Your task to perform on an android device: open app "Duolingo: language lessons" (install if not already installed) Image 0: 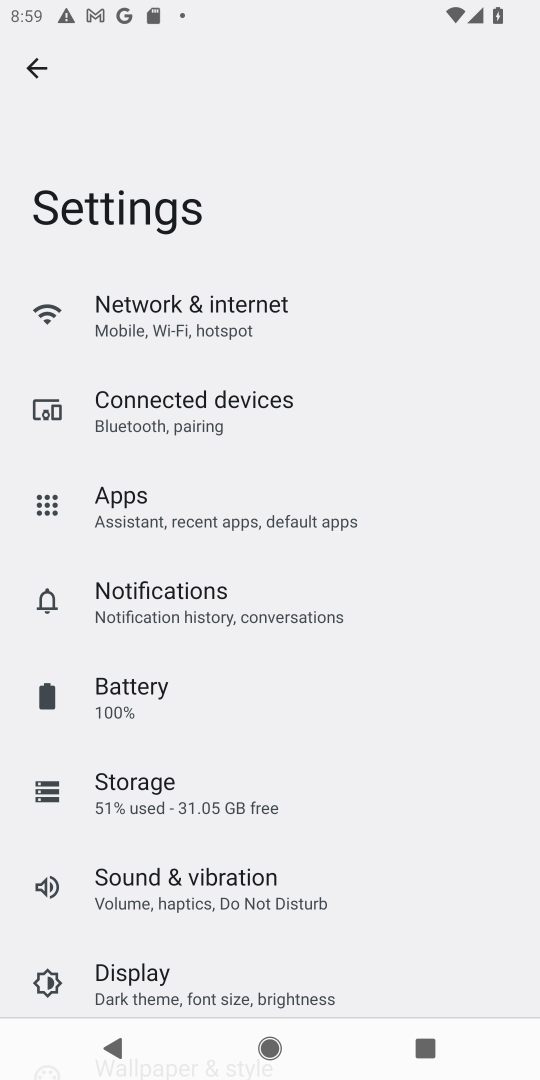
Step 0: press home button
Your task to perform on an android device: open app "Duolingo: language lessons" (install if not already installed) Image 1: 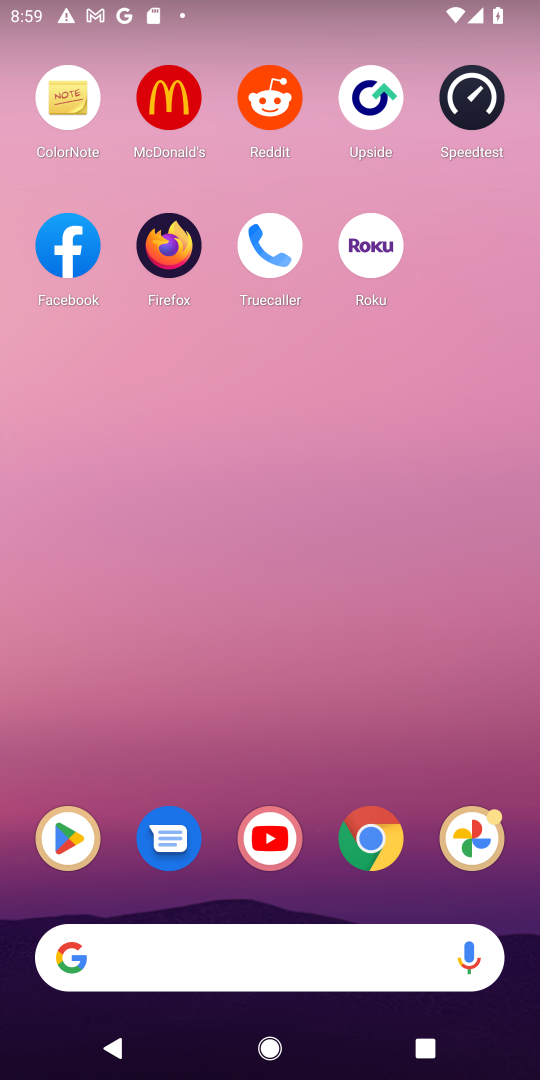
Step 1: drag from (415, 713) to (439, 66)
Your task to perform on an android device: open app "Duolingo: language lessons" (install if not already installed) Image 2: 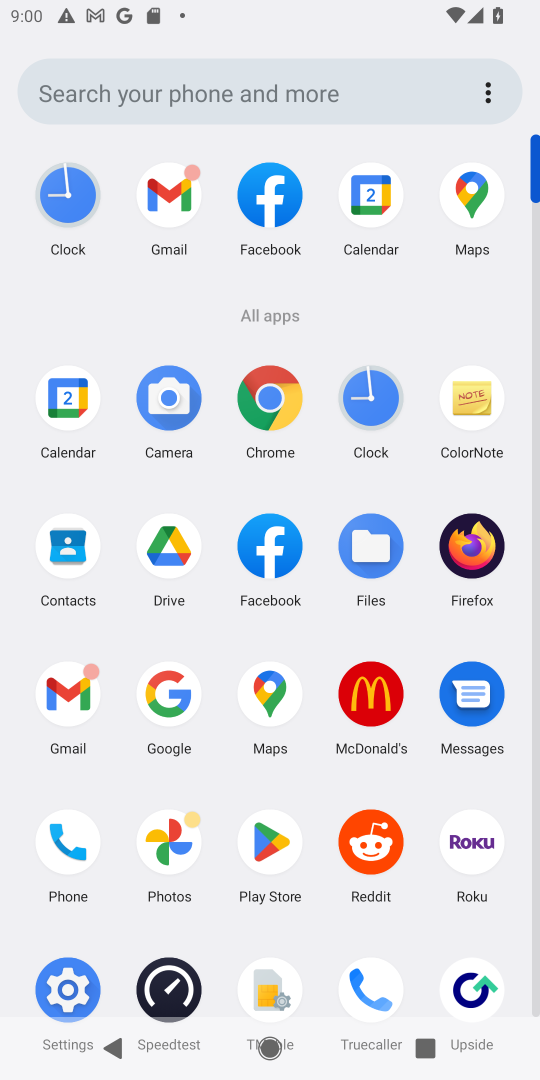
Step 2: click (273, 838)
Your task to perform on an android device: open app "Duolingo: language lessons" (install if not already installed) Image 3: 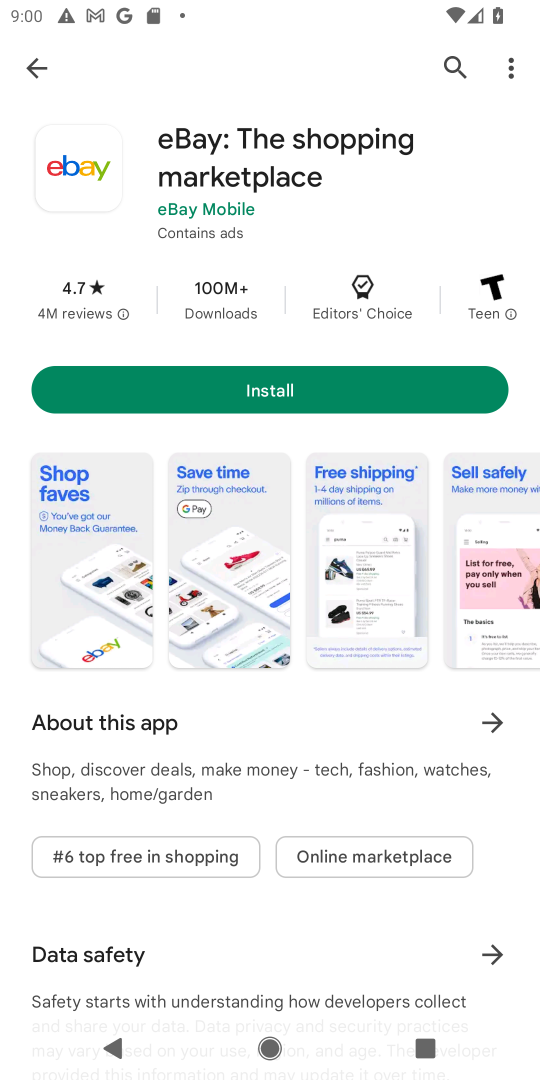
Step 3: click (452, 69)
Your task to perform on an android device: open app "Duolingo: language lessons" (install if not already installed) Image 4: 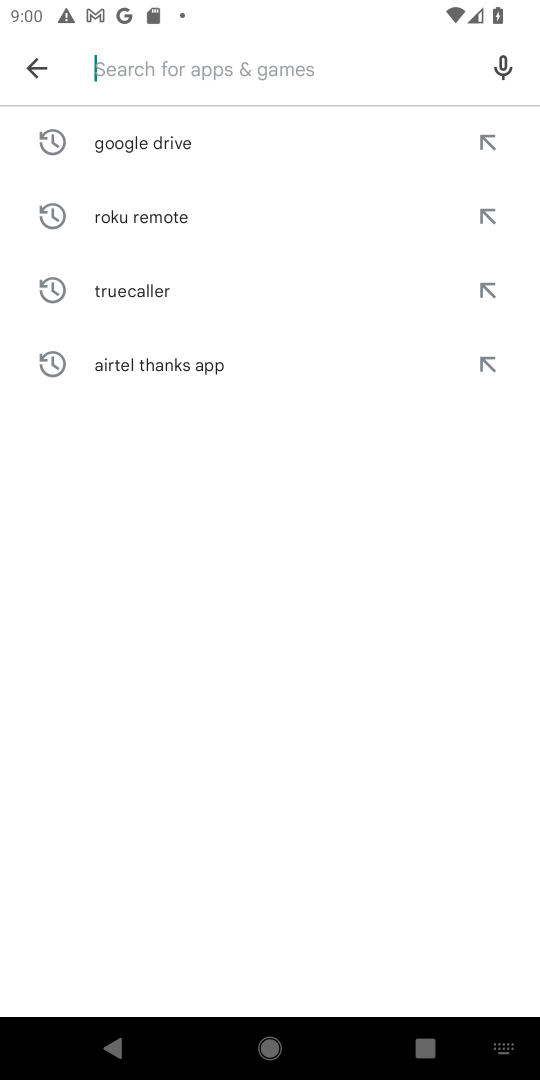
Step 4: click (368, 74)
Your task to perform on an android device: open app "Duolingo: language lessons" (install if not already installed) Image 5: 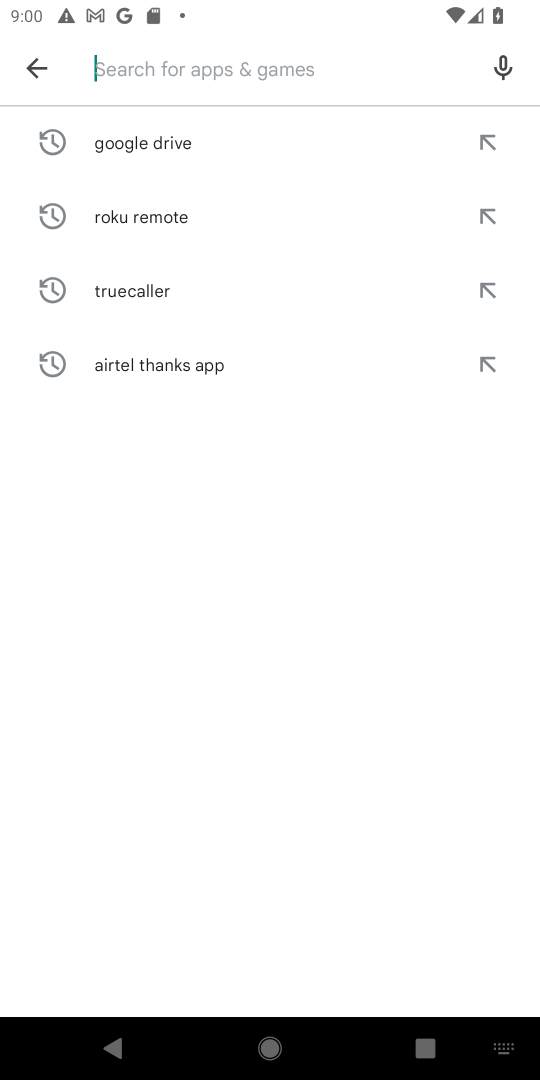
Step 5: type "Duolingo: language lessons"
Your task to perform on an android device: open app "Duolingo: language lessons" (install if not already installed) Image 6: 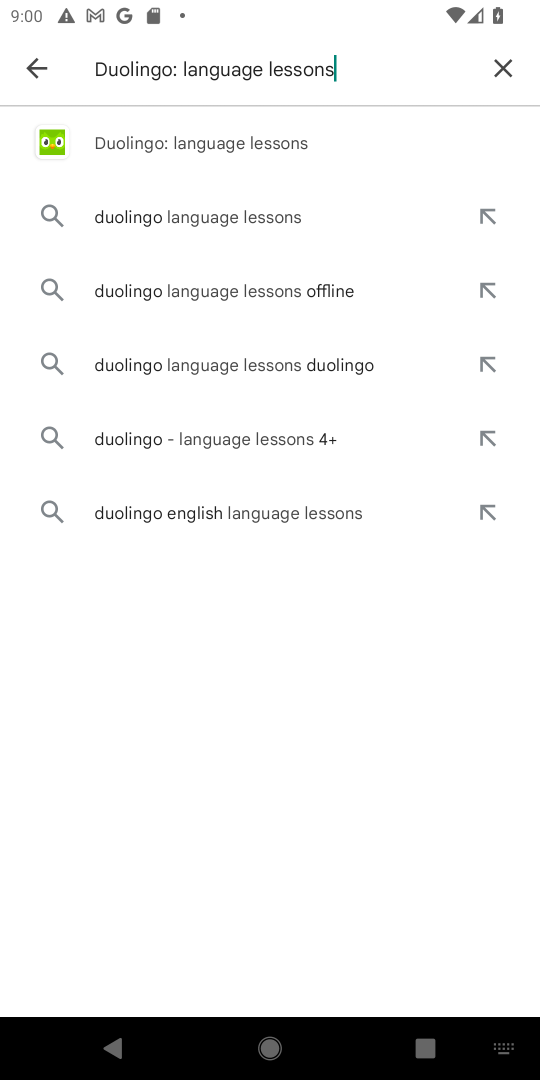
Step 6: click (298, 138)
Your task to perform on an android device: open app "Duolingo: language lessons" (install if not already installed) Image 7: 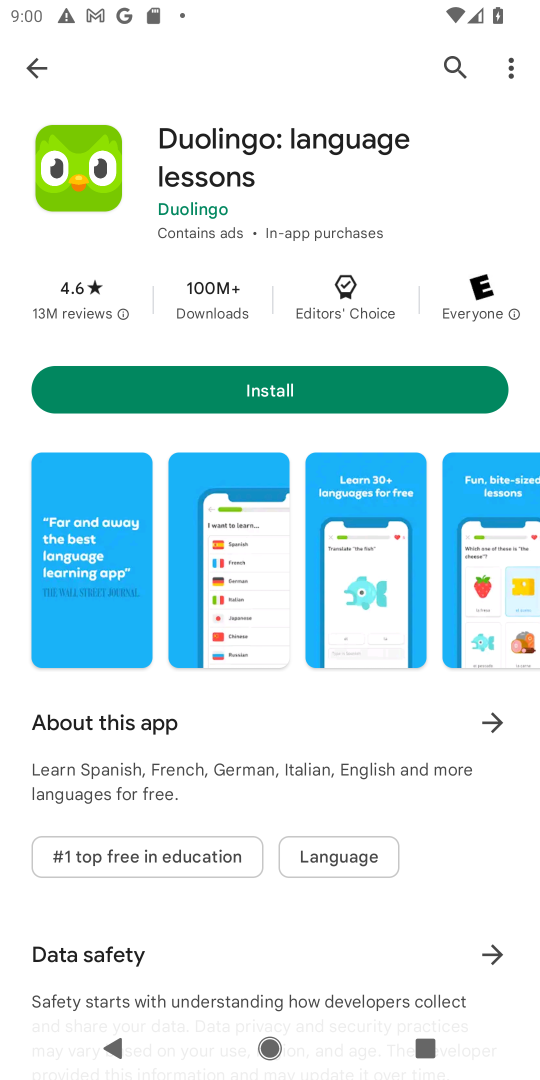
Step 7: click (263, 384)
Your task to perform on an android device: open app "Duolingo: language lessons" (install if not already installed) Image 8: 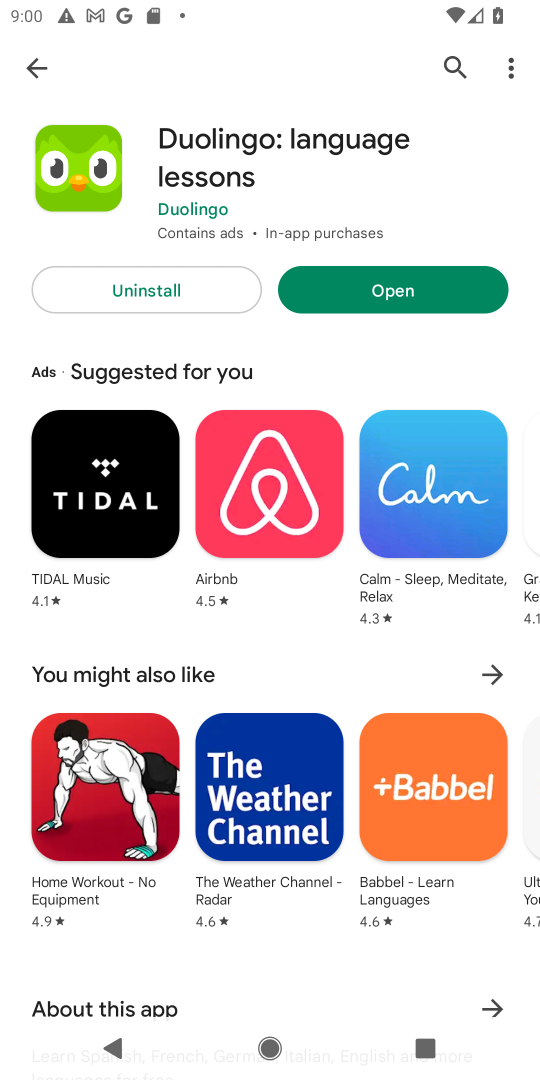
Step 8: click (434, 291)
Your task to perform on an android device: open app "Duolingo: language lessons" (install if not already installed) Image 9: 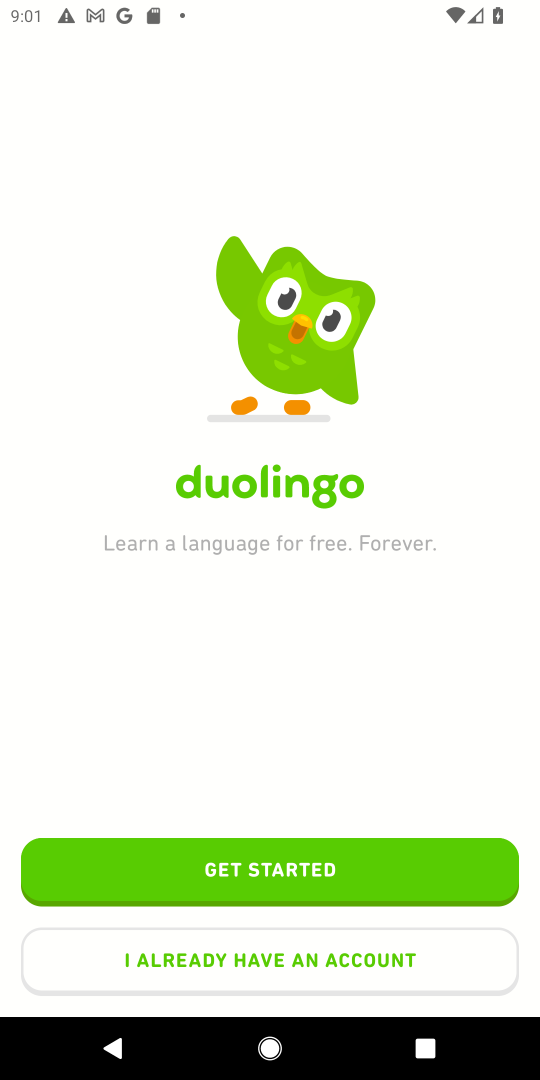
Step 9: task complete